Your task to perform on an android device: open a new tab in the chrome app Image 0: 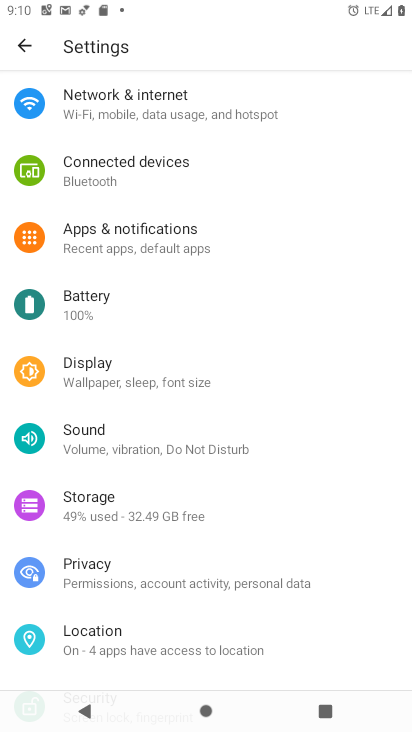
Step 0: press home button
Your task to perform on an android device: open a new tab in the chrome app Image 1: 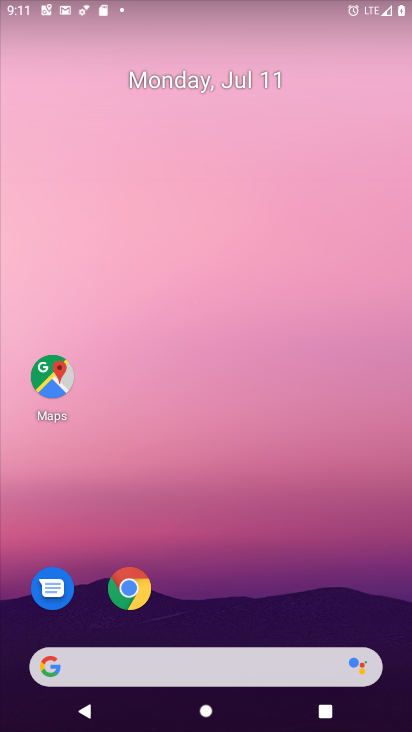
Step 1: click (135, 594)
Your task to perform on an android device: open a new tab in the chrome app Image 2: 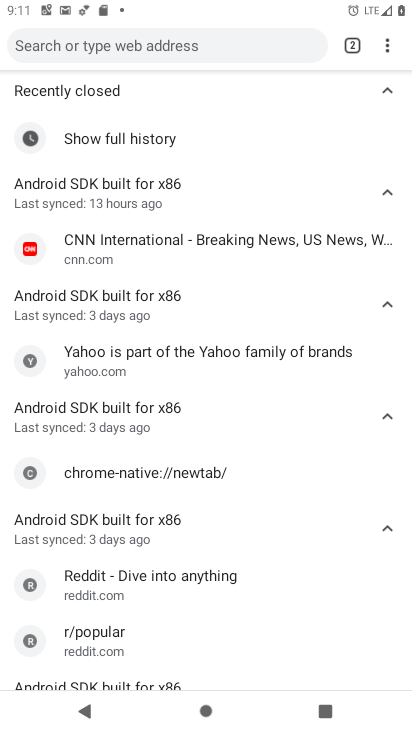
Step 2: task complete